Your task to perform on an android device: Open Google Maps Image 0: 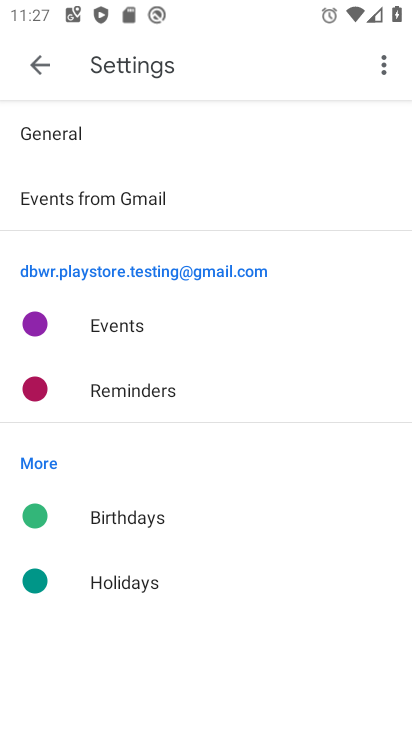
Step 0: press home button
Your task to perform on an android device: Open Google Maps Image 1: 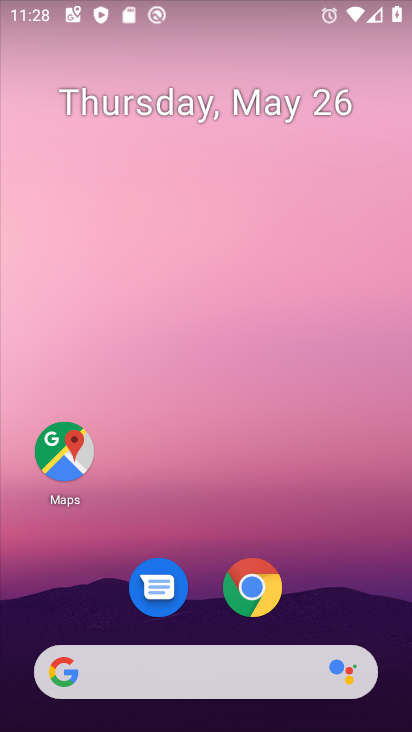
Step 1: drag from (275, 712) to (205, 186)
Your task to perform on an android device: Open Google Maps Image 2: 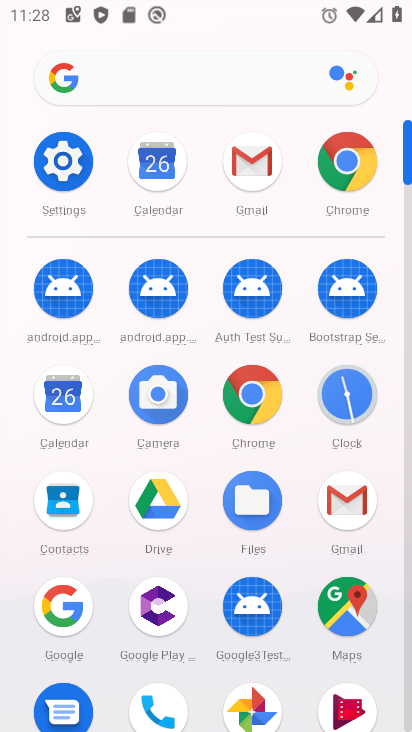
Step 2: click (344, 618)
Your task to perform on an android device: Open Google Maps Image 3: 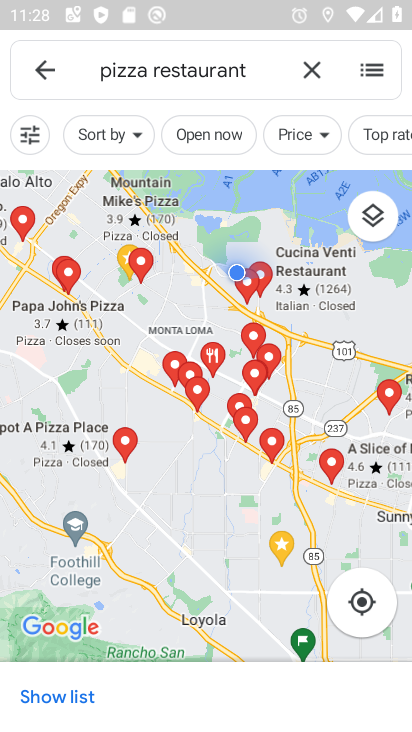
Step 3: click (42, 75)
Your task to perform on an android device: Open Google Maps Image 4: 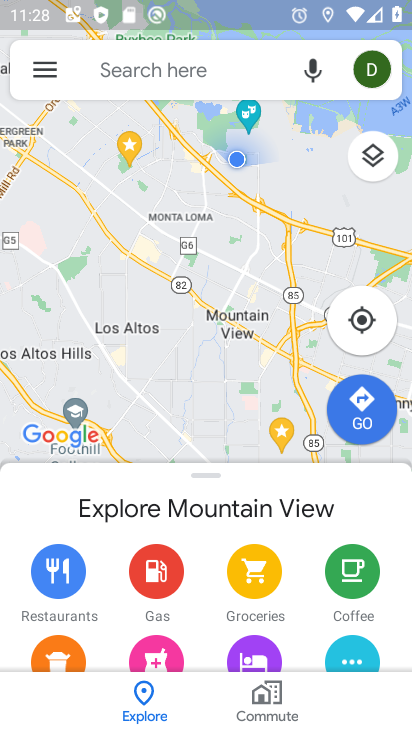
Step 4: click (349, 308)
Your task to perform on an android device: Open Google Maps Image 5: 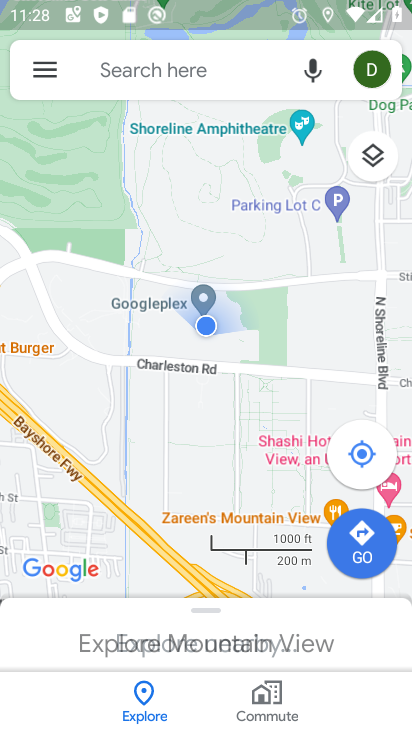
Step 5: task complete